Your task to perform on an android device: What's on my calendar tomorrow? Image 0: 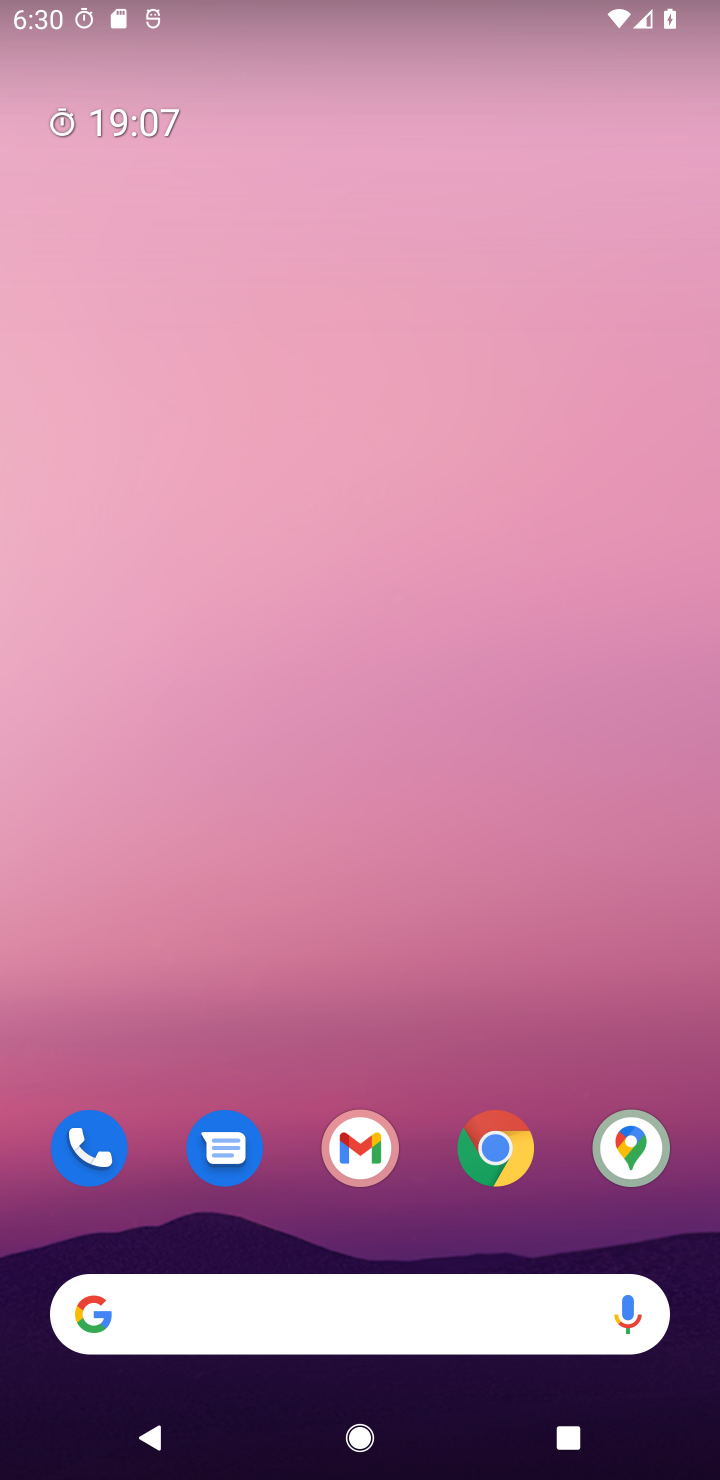
Step 0: drag from (334, 1238) to (327, 219)
Your task to perform on an android device: What's on my calendar tomorrow? Image 1: 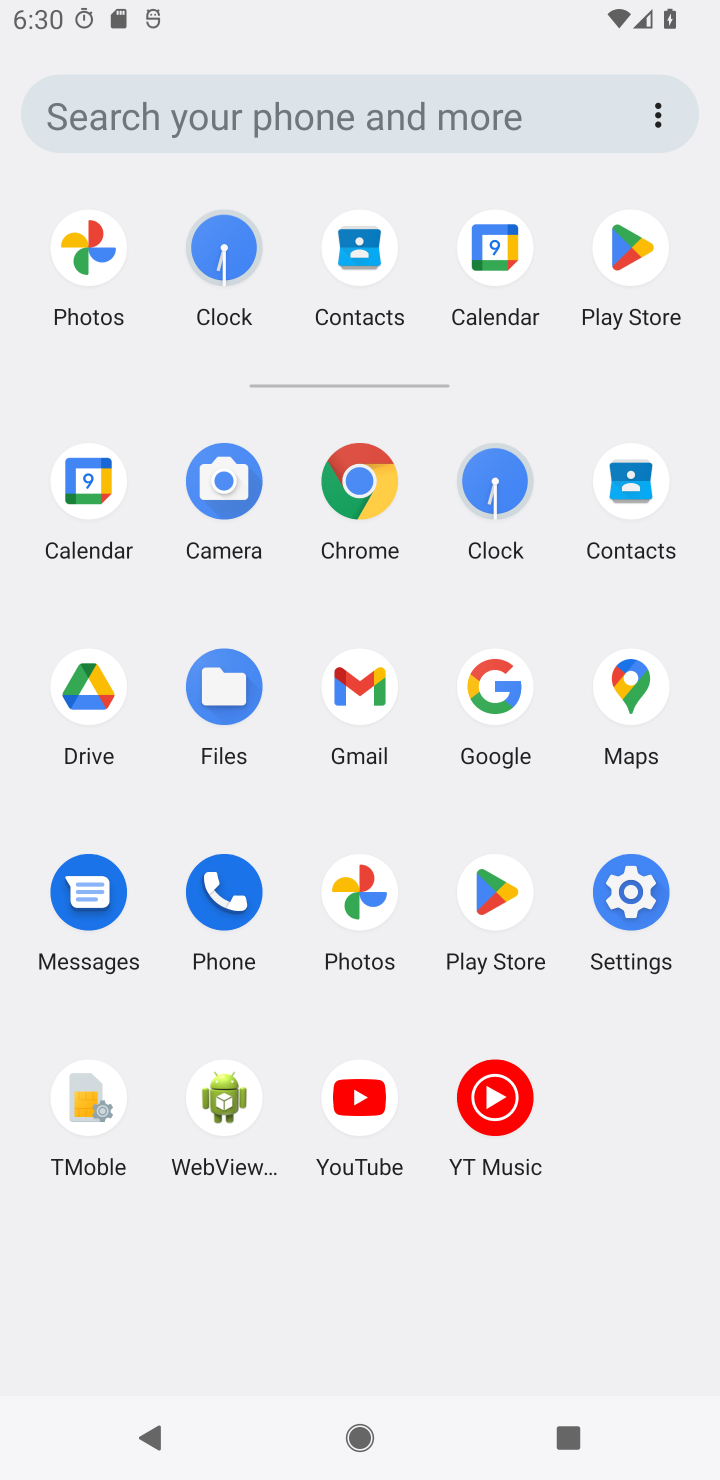
Step 1: click (85, 509)
Your task to perform on an android device: What's on my calendar tomorrow? Image 2: 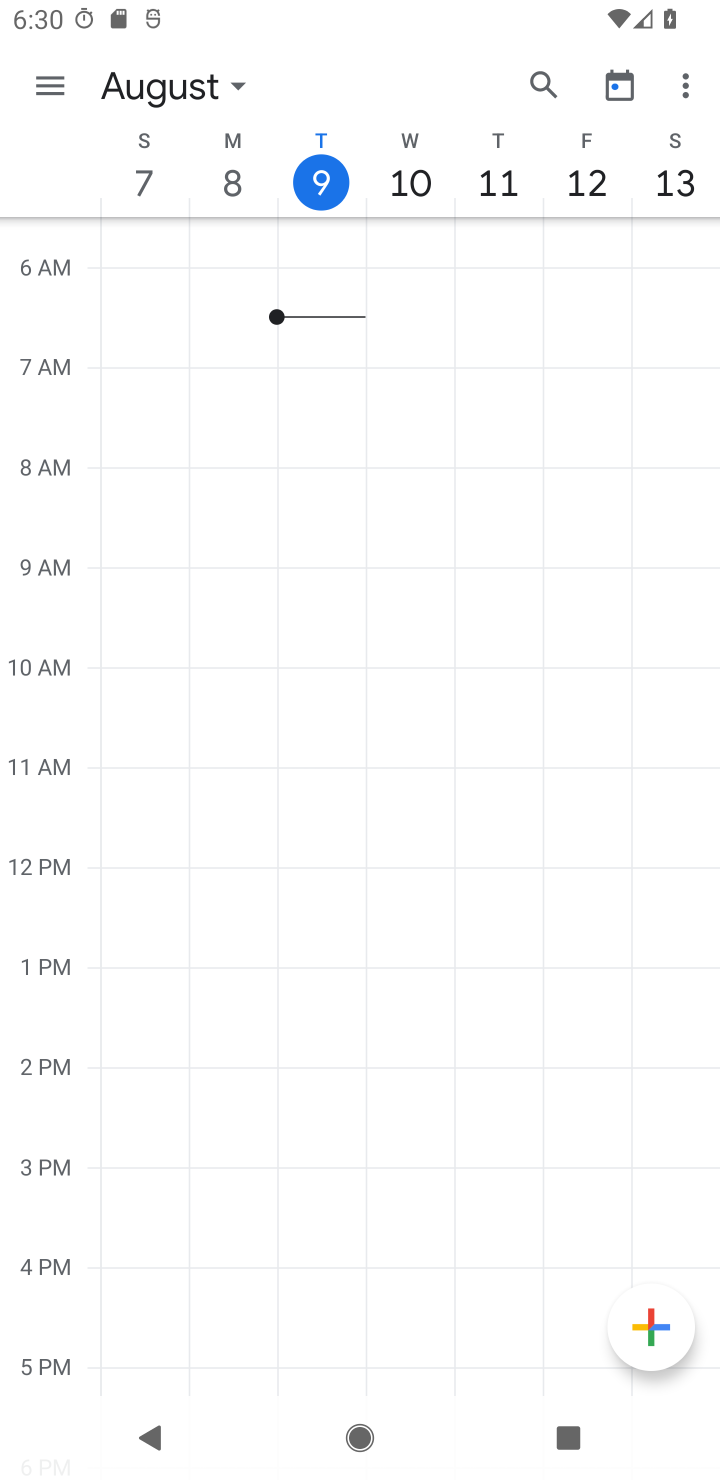
Step 2: click (72, 86)
Your task to perform on an android device: What's on my calendar tomorrow? Image 3: 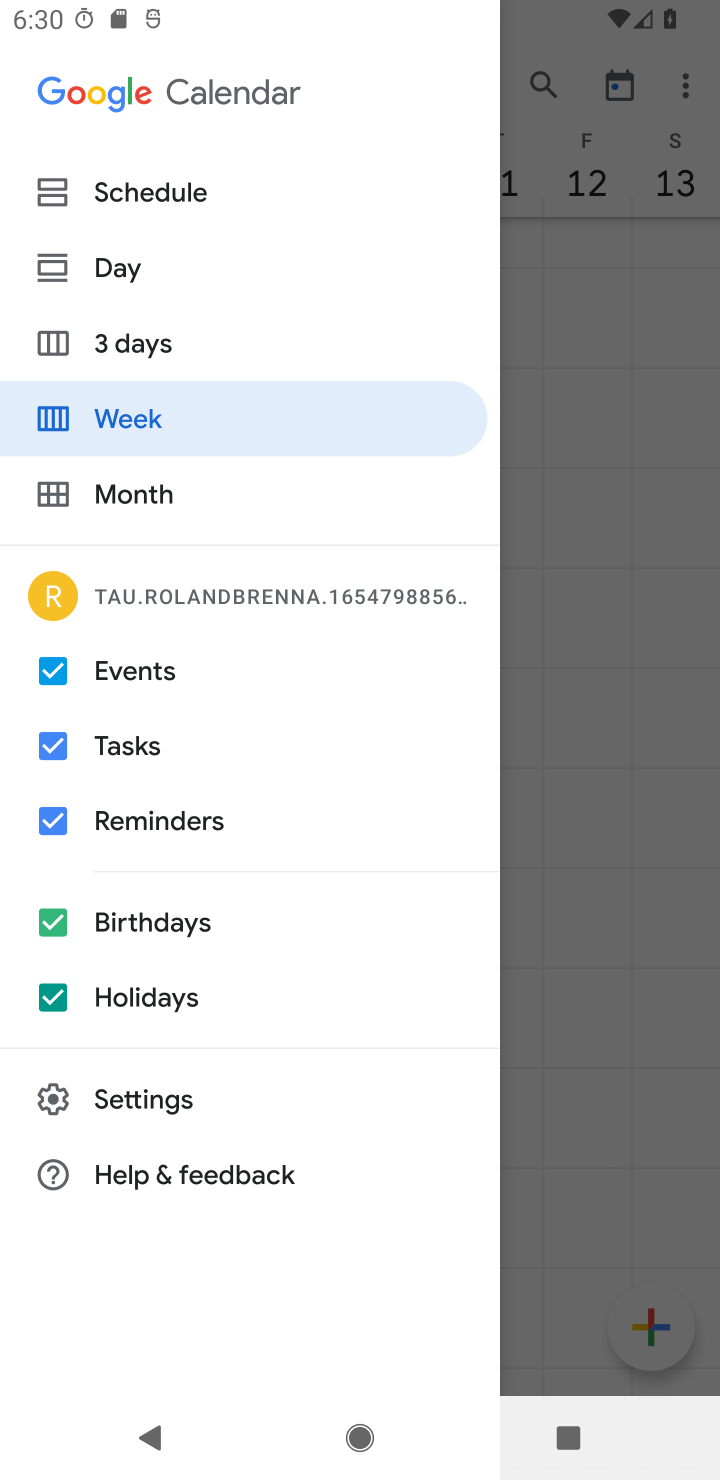
Step 3: click (148, 276)
Your task to perform on an android device: What's on my calendar tomorrow? Image 4: 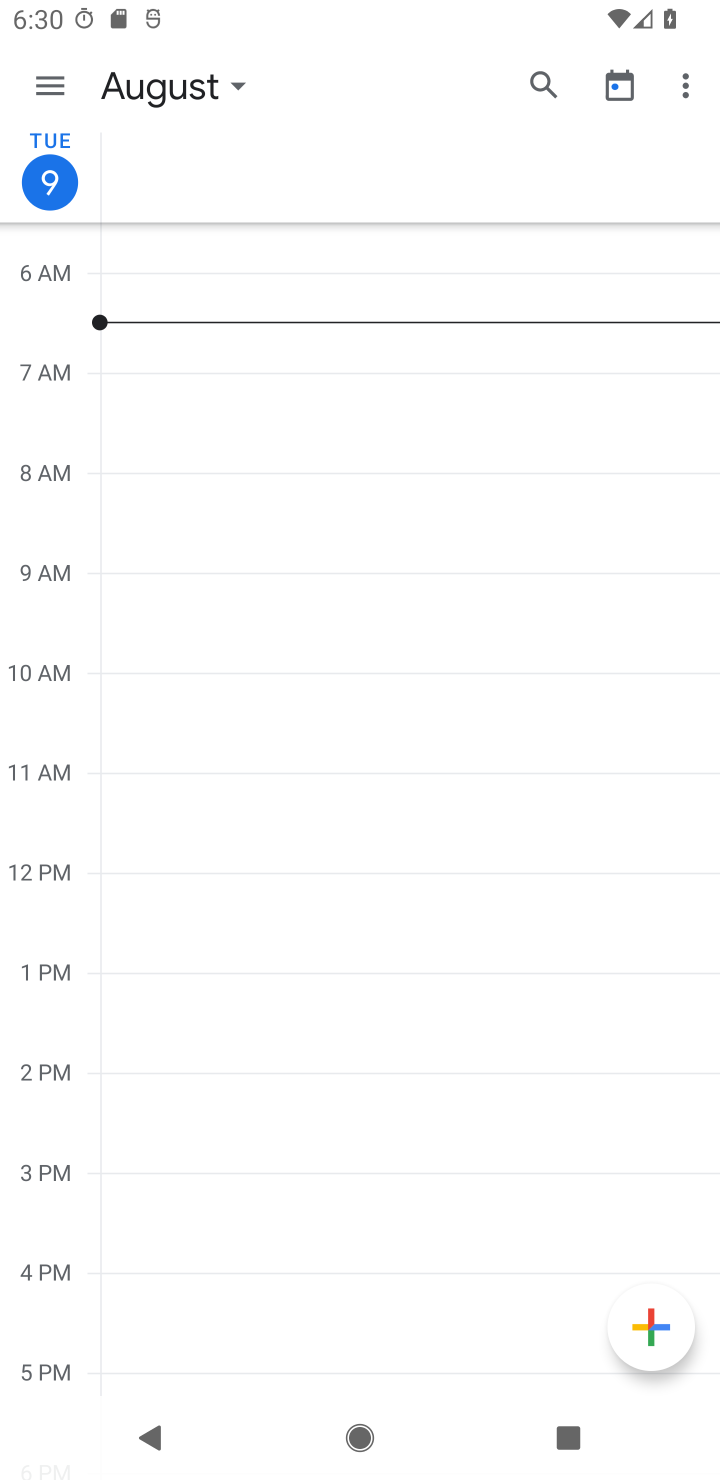
Step 4: click (47, 80)
Your task to perform on an android device: What's on my calendar tomorrow? Image 5: 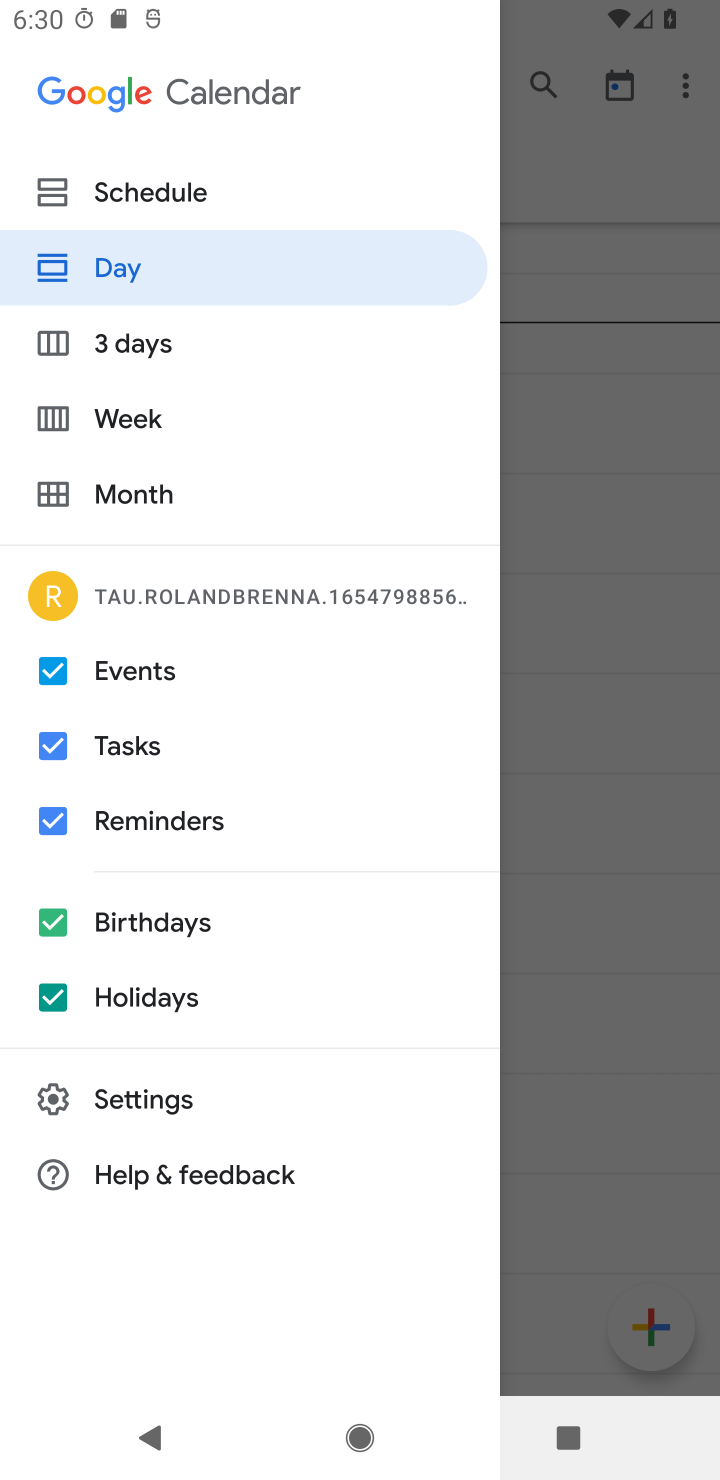
Step 5: click (184, 352)
Your task to perform on an android device: What's on my calendar tomorrow? Image 6: 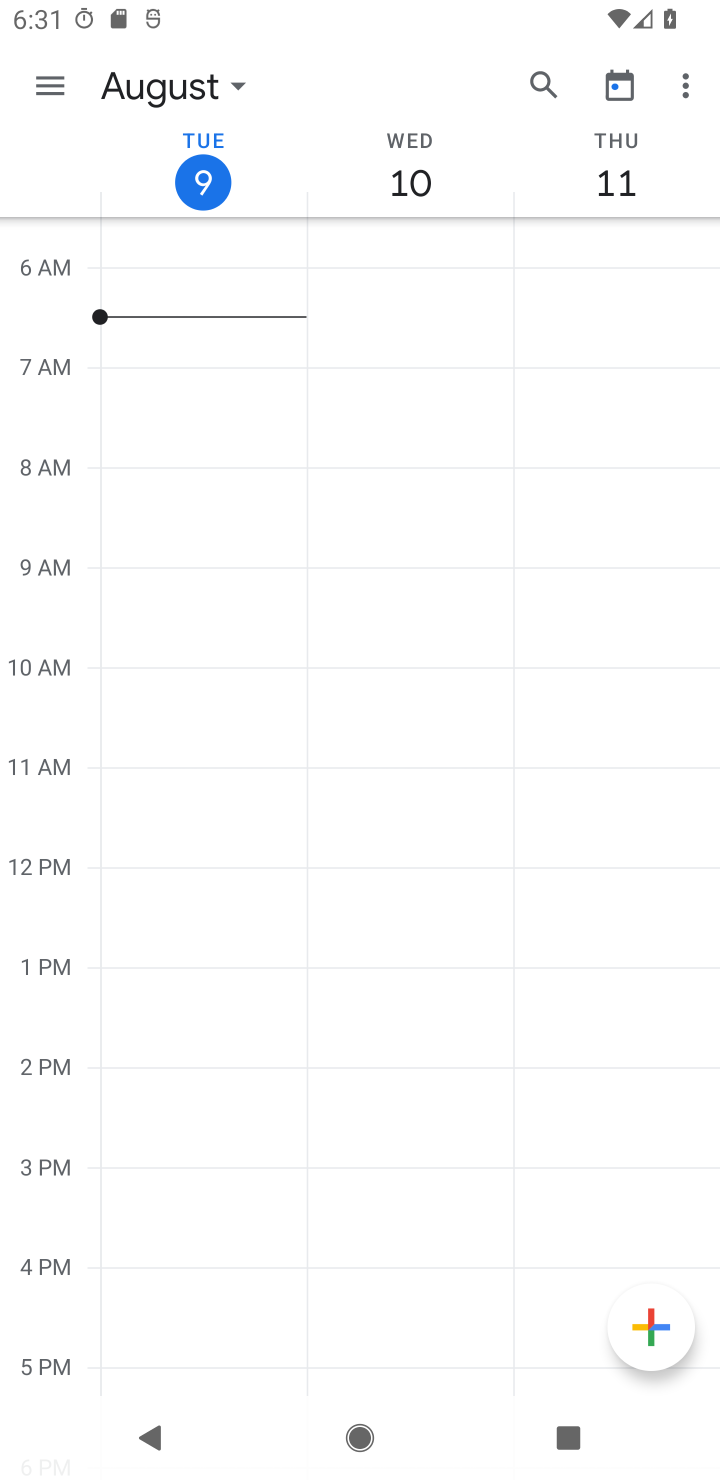
Step 6: task complete